Your task to perform on an android device: set default search engine in the chrome app Image 0: 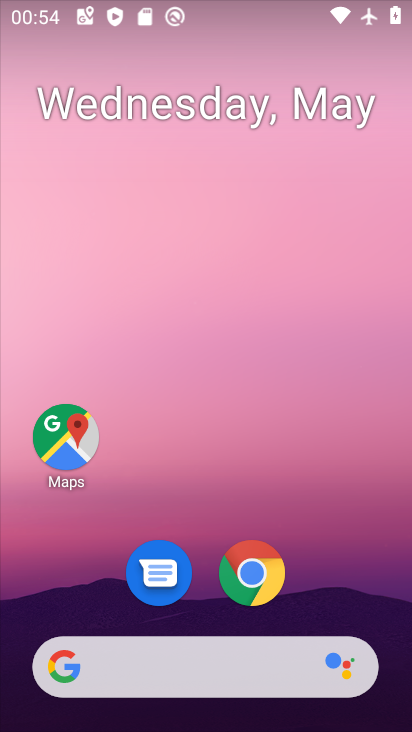
Step 0: drag from (326, 553) to (311, 215)
Your task to perform on an android device: set default search engine in the chrome app Image 1: 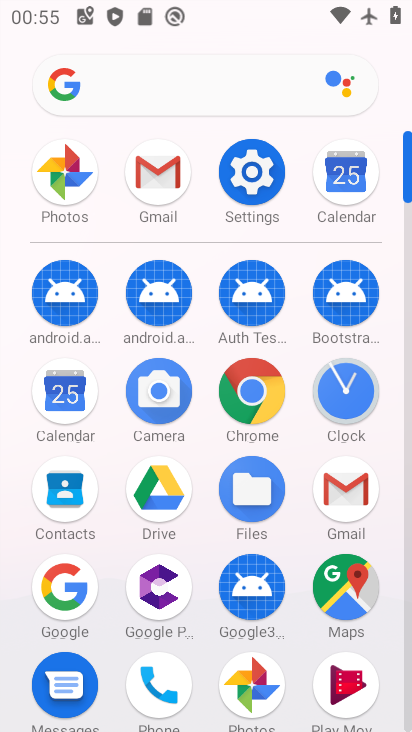
Step 1: click (249, 372)
Your task to perform on an android device: set default search engine in the chrome app Image 2: 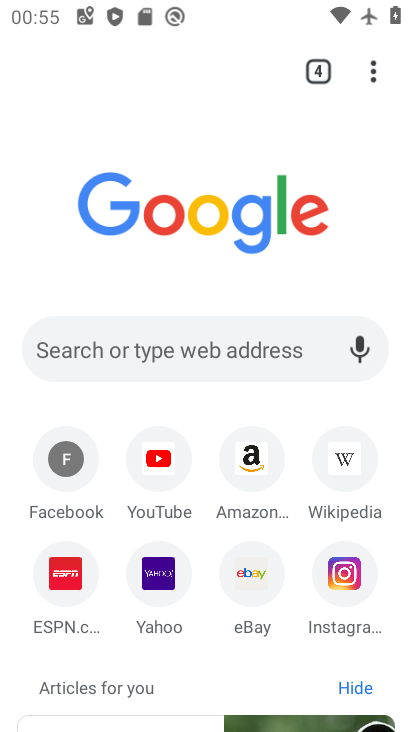
Step 2: click (368, 68)
Your task to perform on an android device: set default search engine in the chrome app Image 3: 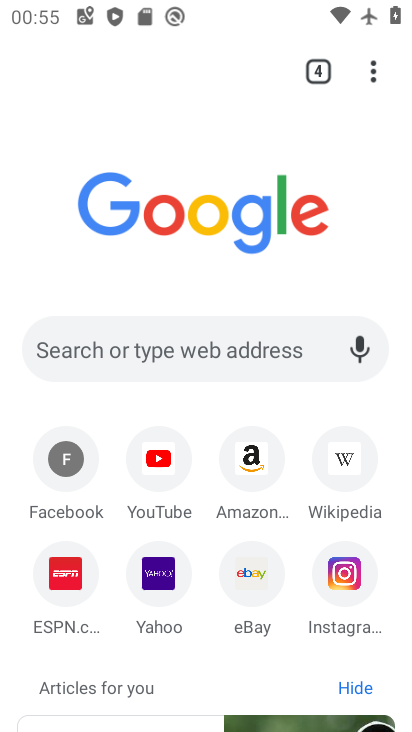
Step 3: click (382, 63)
Your task to perform on an android device: set default search engine in the chrome app Image 4: 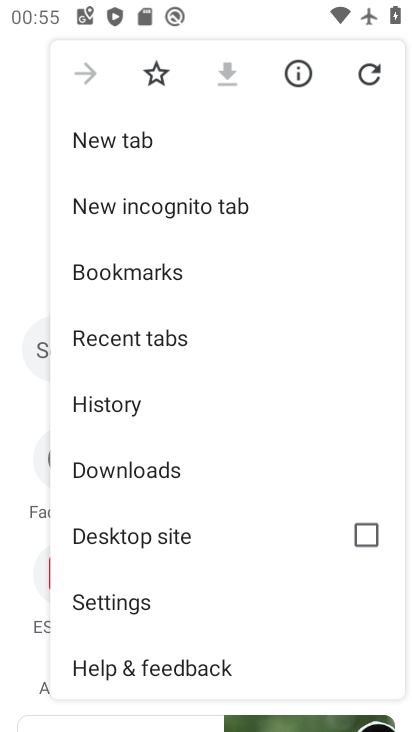
Step 4: click (148, 601)
Your task to perform on an android device: set default search engine in the chrome app Image 5: 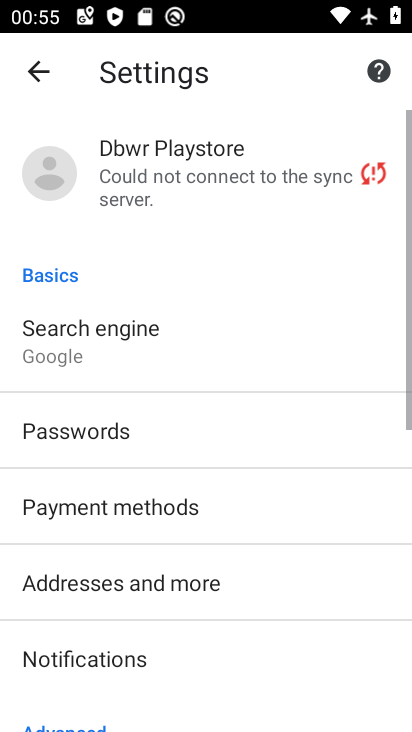
Step 5: click (65, 342)
Your task to perform on an android device: set default search engine in the chrome app Image 6: 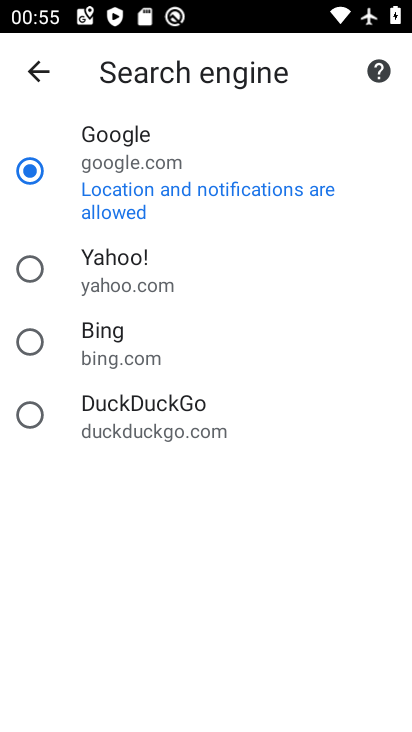
Step 6: click (130, 340)
Your task to perform on an android device: set default search engine in the chrome app Image 7: 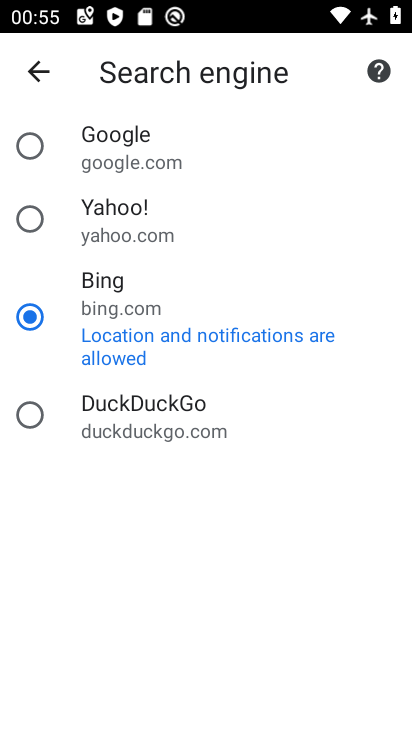
Step 7: task complete